Your task to perform on an android device: Open Google Maps Image 0: 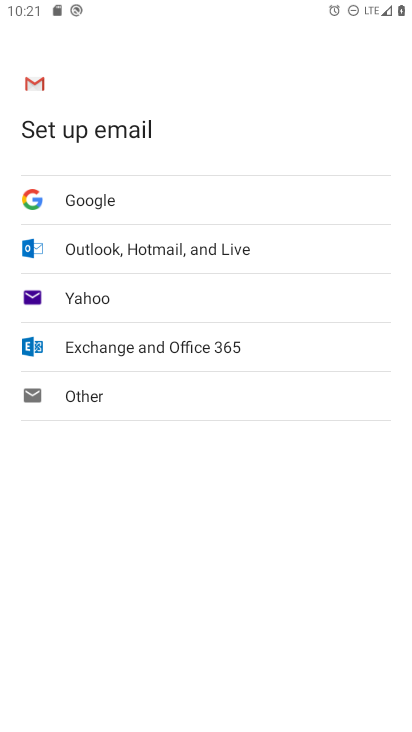
Step 0: press home button
Your task to perform on an android device: Open Google Maps Image 1: 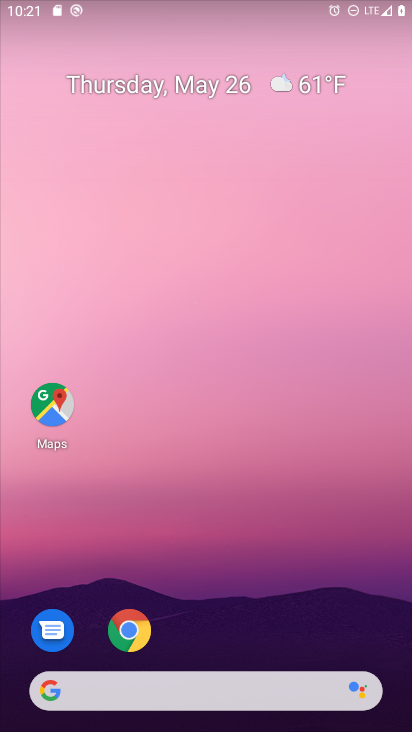
Step 1: drag from (202, 676) to (197, 269)
Your task to perform on an android device: Open Google Maps Image 2: 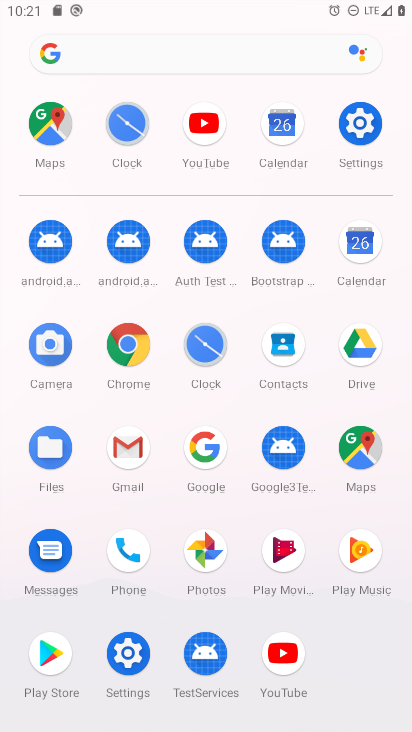
Step 2: click (373, 433)
Your task to perform on an android device: Open Google Maps Image 3: 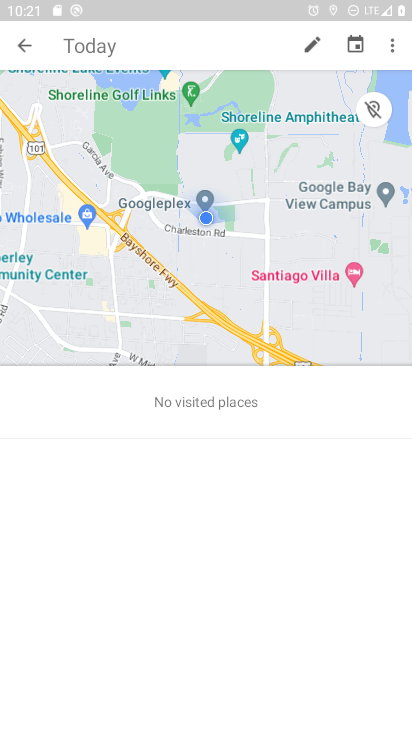
Step 3: task complete